Your task to perform on an android device: open app "Roku - Official Remote Control" (install if not already installed) Image 0: 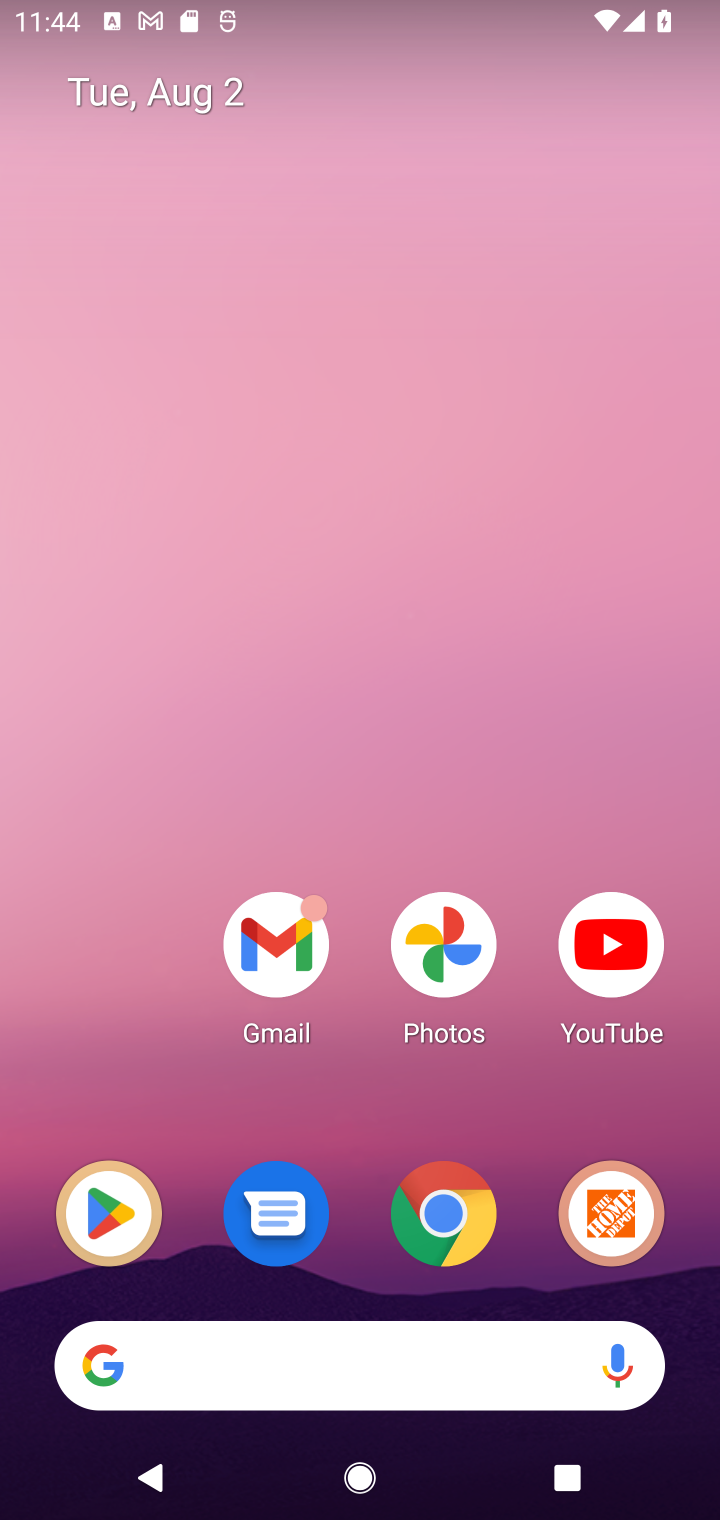
Step 0: click (87, 1226)
Your task to perform on an android device: open app "Roku - Official Remote Control" (install if not already installed) Image 1: 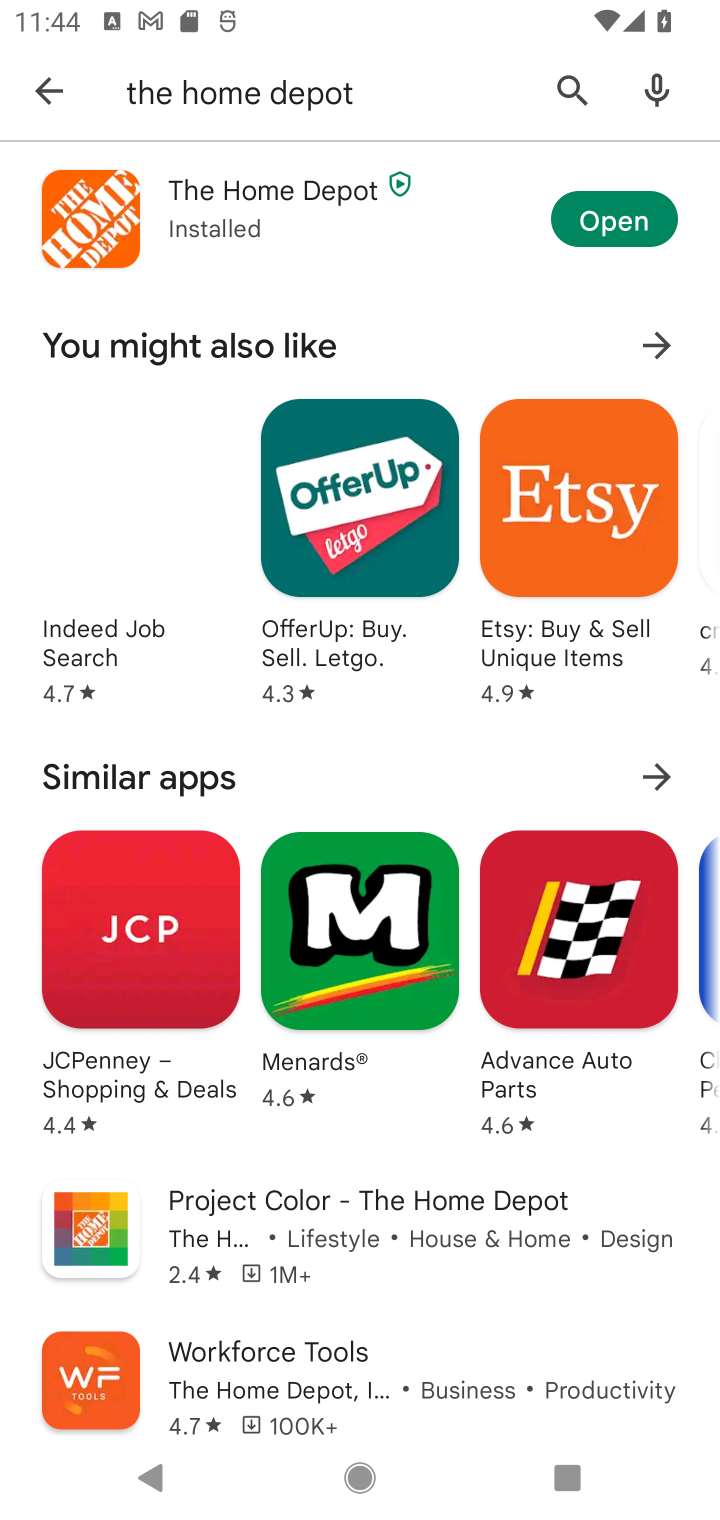
Step 1: click (41, 81)
Your task to perform on an android device: open app "Roku - Official Remote Control" (install if not already installed) Image 2: 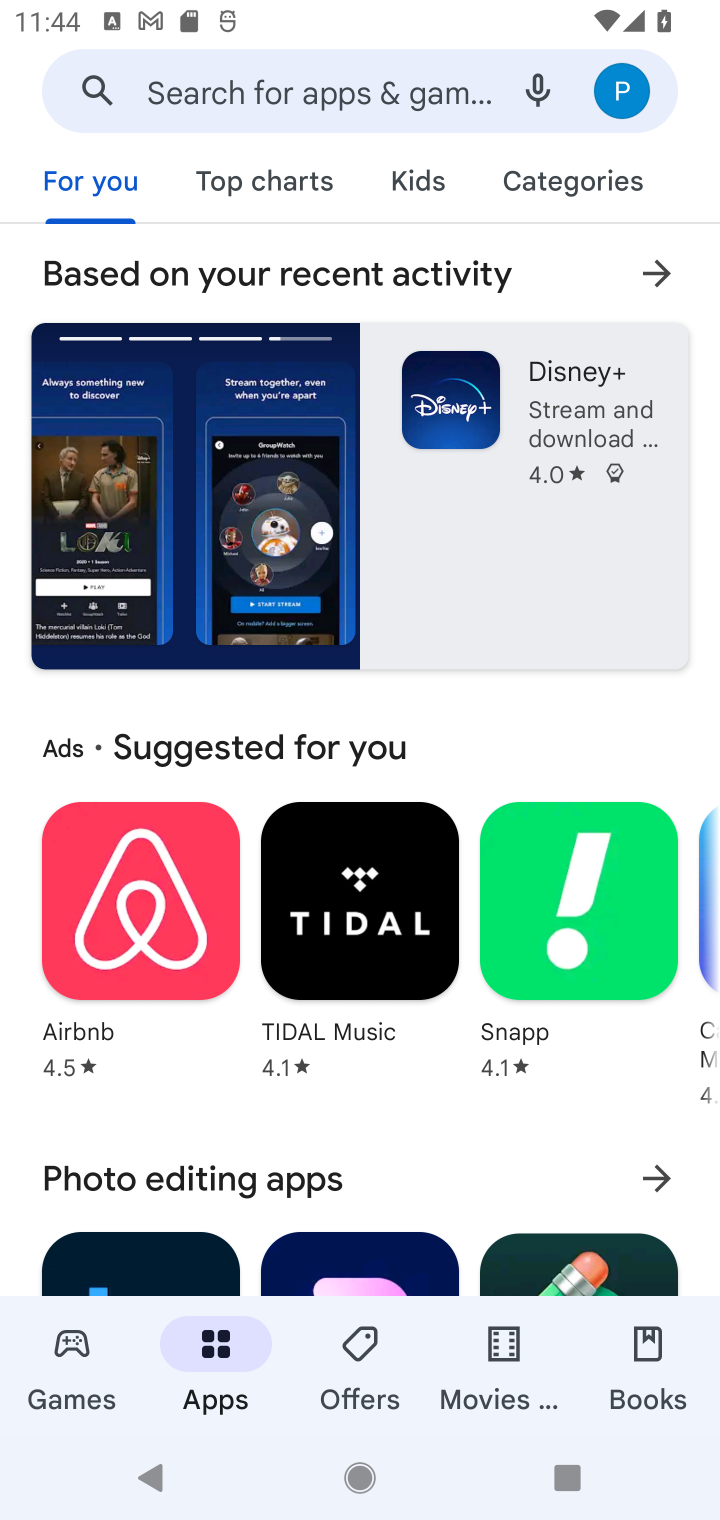
Step 2: click (329, 81)
Your task to perform on an android device: open app "Roku - Official Remote Control" (install if not already installed) Image 3: 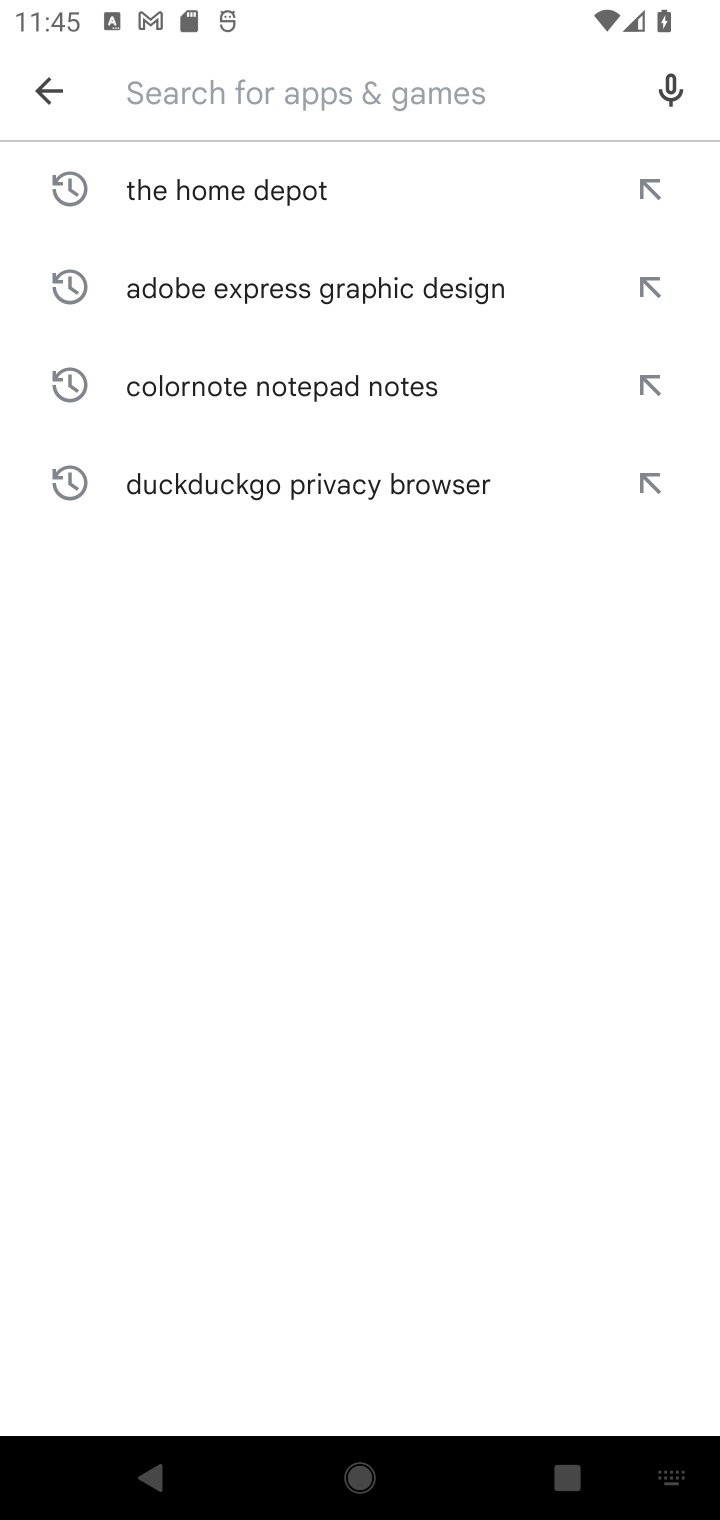
Step 3: type "Roku - Official Remote Contro"
Your task to perform on an android device: open app "Roku - Official Remote Control" (install if not already installed) Image 4: 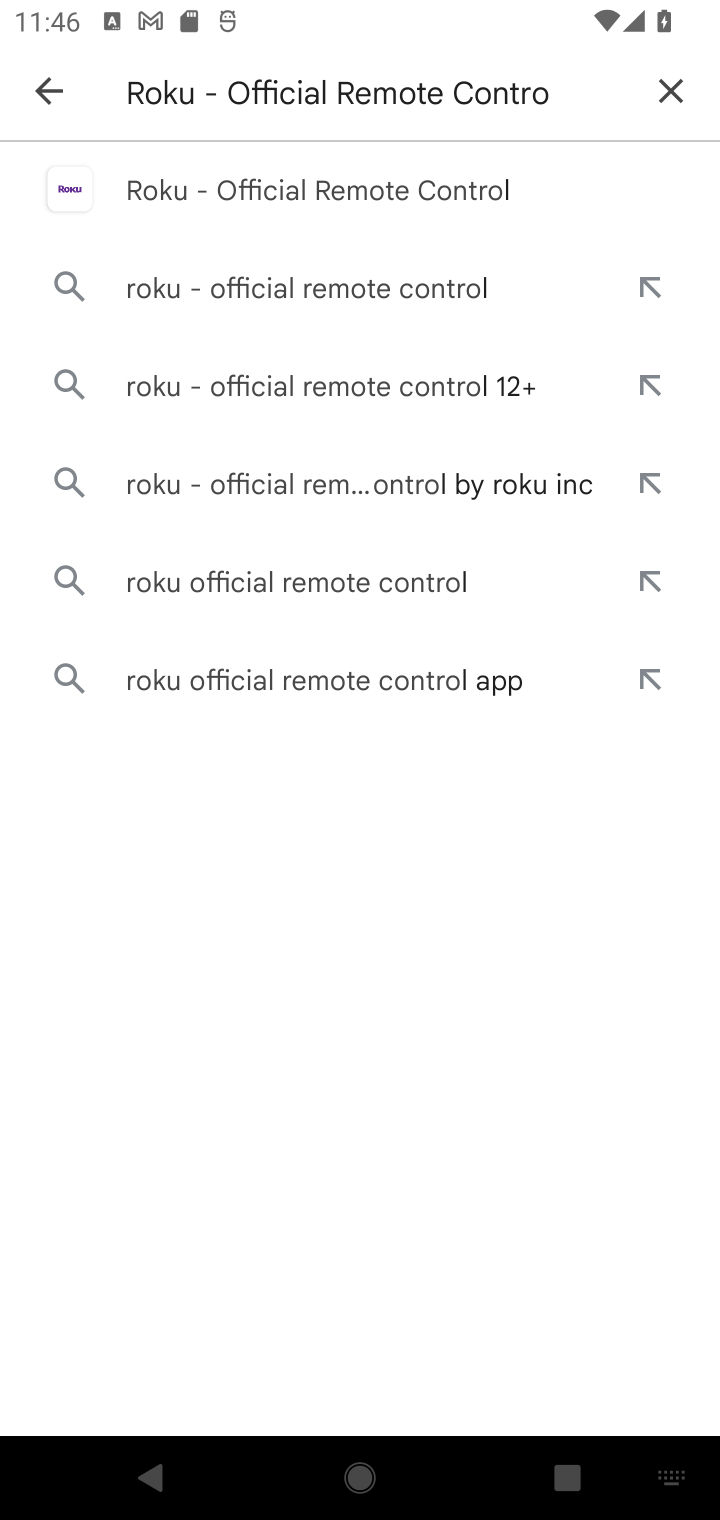
Step 4: click (347, 188)
Your task to perform on an android device: open app "Roku - Official Remote Control" (install if not already installed) Image 5: 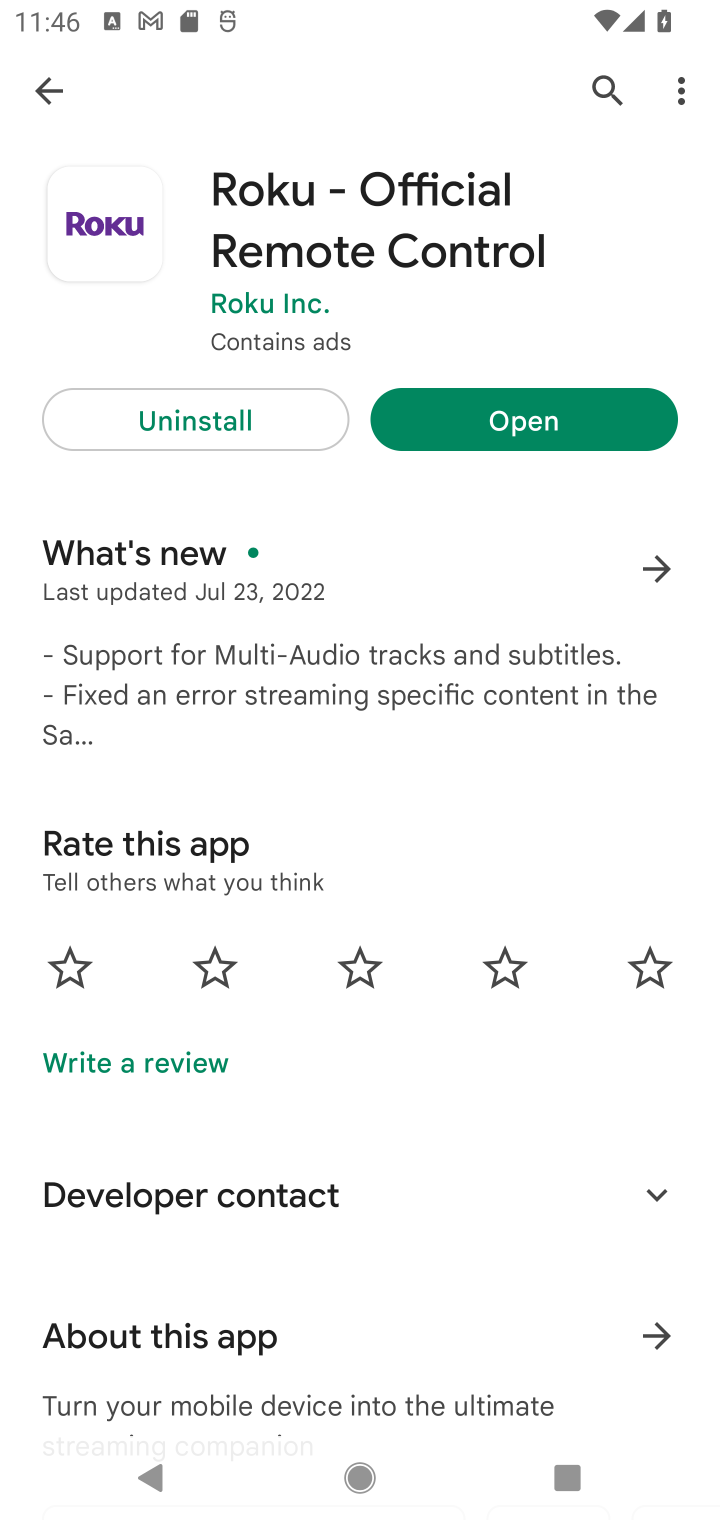
Step 5: click (500, 401)
Your task to perform on an android device: open app "Roku - Official Remote Control" (install if not already installed) Image 6: 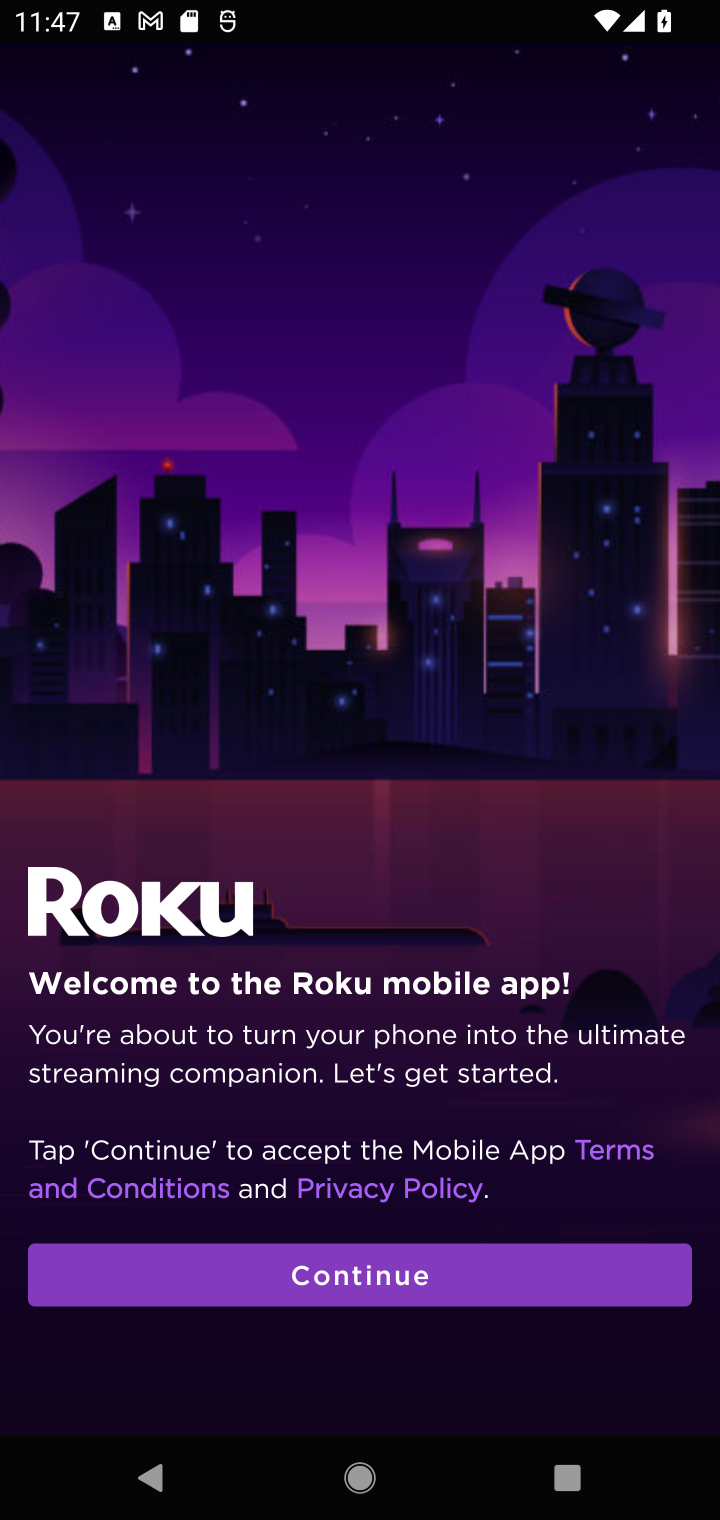
Step 6: task complete